Your task to perform on an android device: stop showing notifications on the lock screen Image 0: 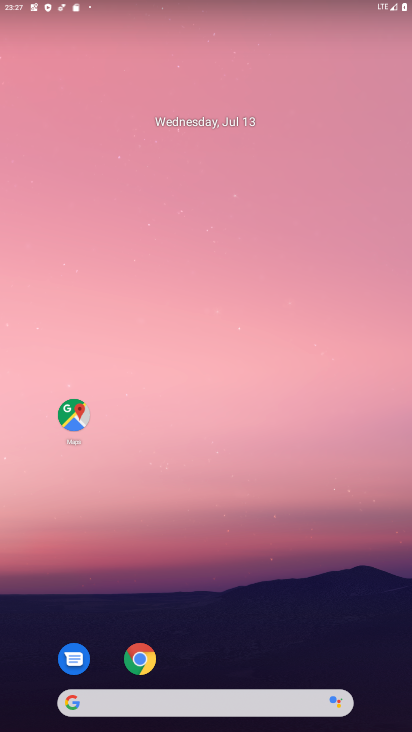
Step 0: drag from (337, 632) to (295, 109)
Your task to perform on an android device: stop showing notifications on the lock screen Image 1: 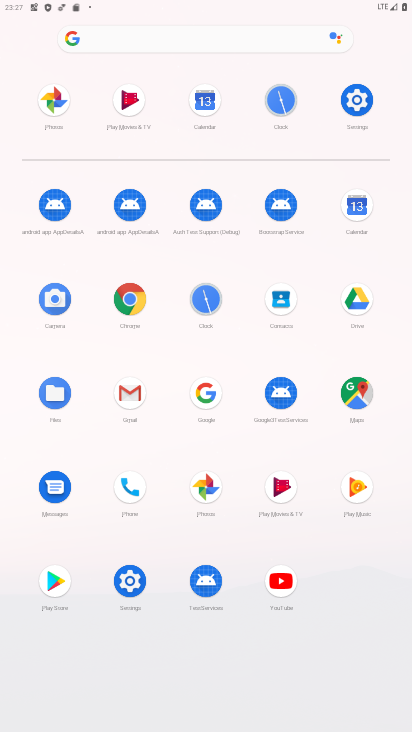
Step 1: click (125, 580)
Your task to perform on an android device: stop showing notifications on the lock screen Image 2: 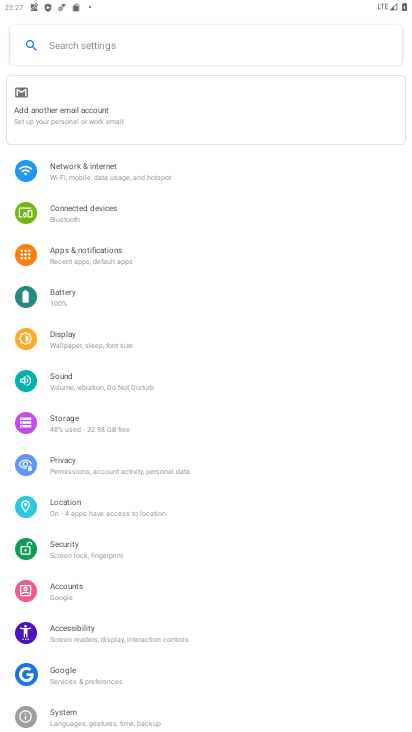
Step 2: click (86, 252)
Your task to perform on an android device: stop showing notifications on the lock screen Image 3: 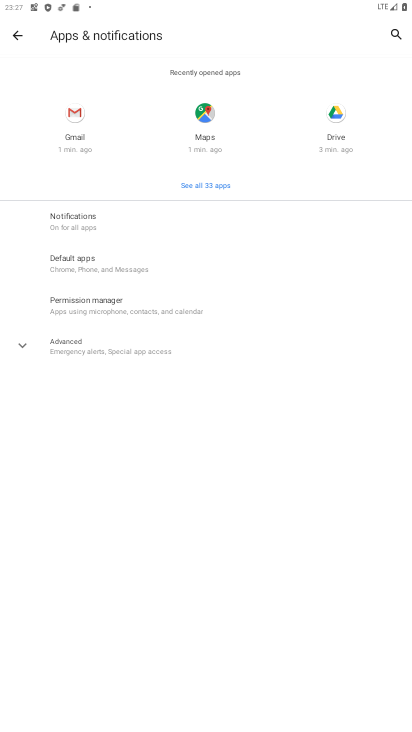
Step 3: click (74, 217)
Your task to perform on an android device: stop showing notifications on the lock screen Image 4: 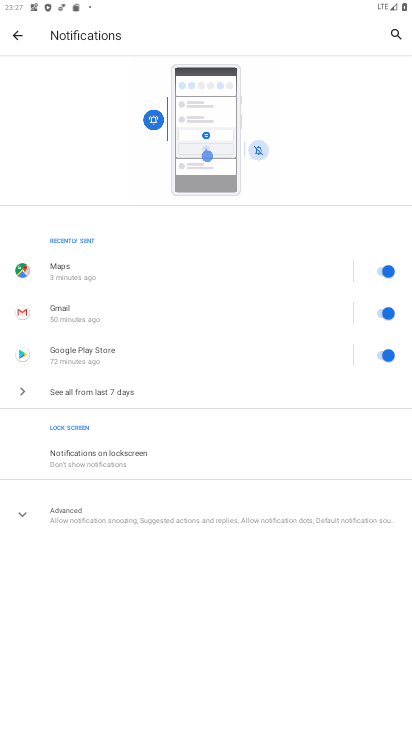
Step 4: click (25, 511)
Your task to perform on an android device: stop showing notifications on the lock screen Image 5: 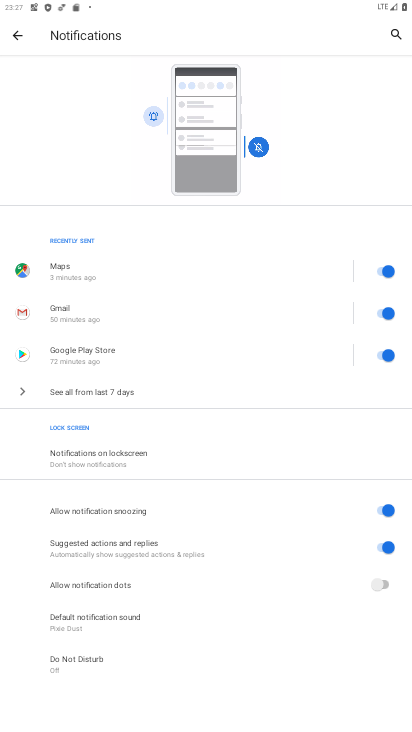
Step 5: click (92, 451)
Your task to perform on an android device: stop showing notifications on the lock screen Image 6: 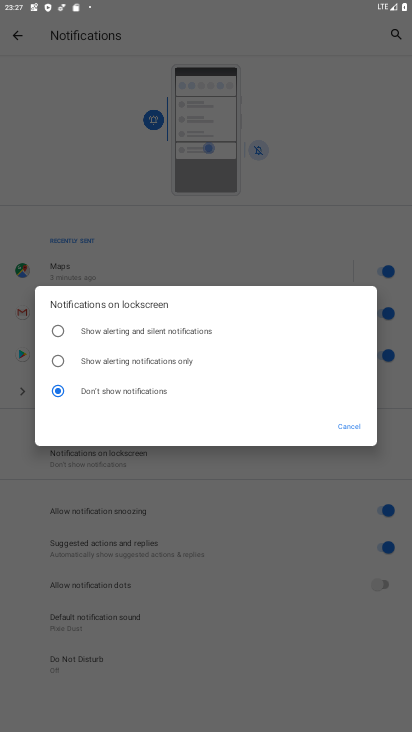
Step 6: task complete